Your task to perform on an android device: Go to Wikipedia Image 0: 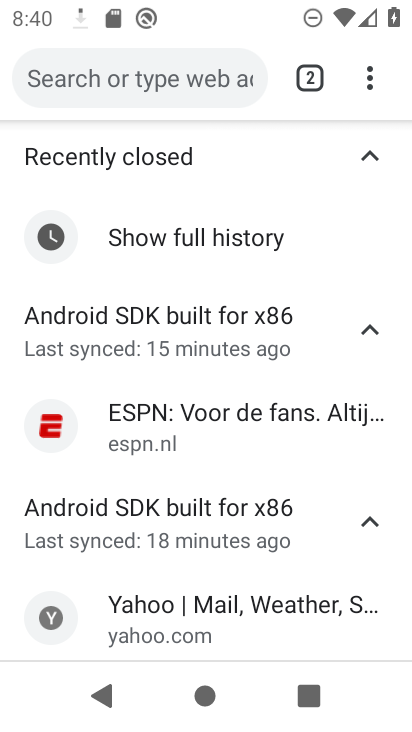
Step 0: press home button
Your task to perform on an android device: Go to Wikipedia Image 1: 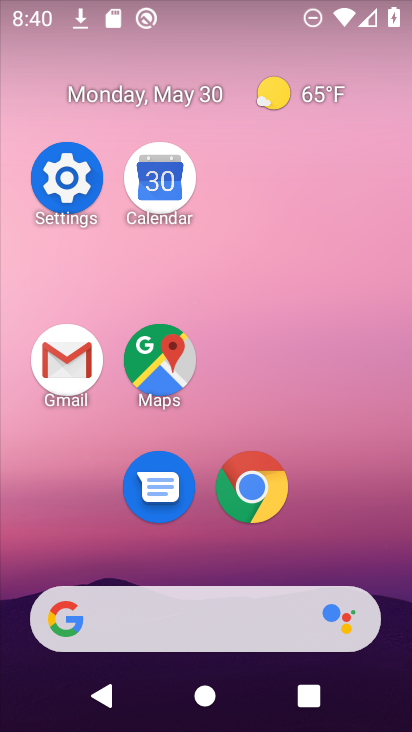
Step 1: click (247, 489)
Your task to perform on an android device: Go to Wikipedia Image 2: 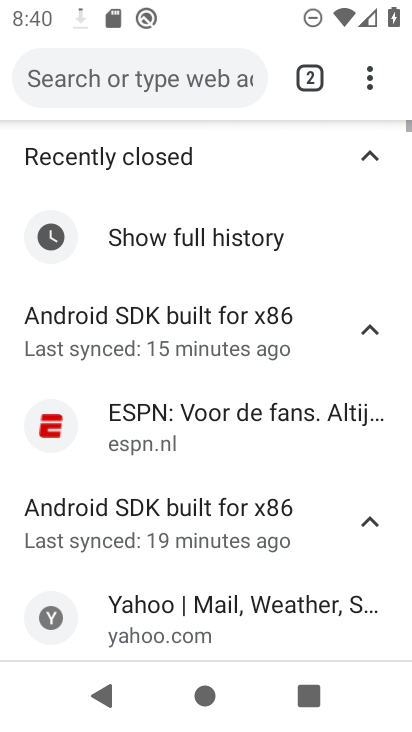
Step 2: click (300, 80)
Your task to perform on an android device: Go to Wikipedia Image 3: 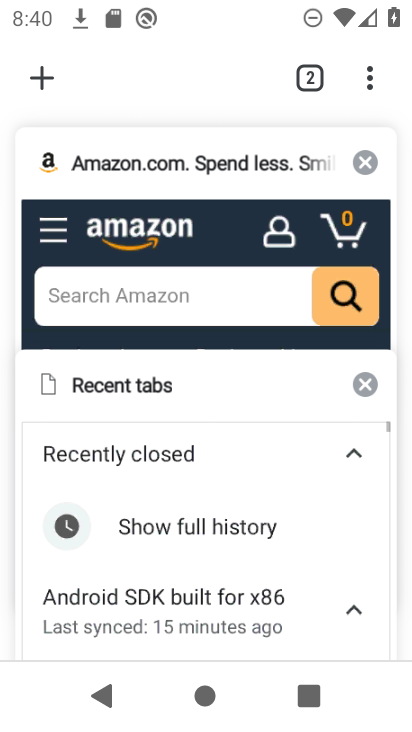
Step 3: click (44, 61)
Your task to perform on an android device: Go to Wikipedia Image 4: 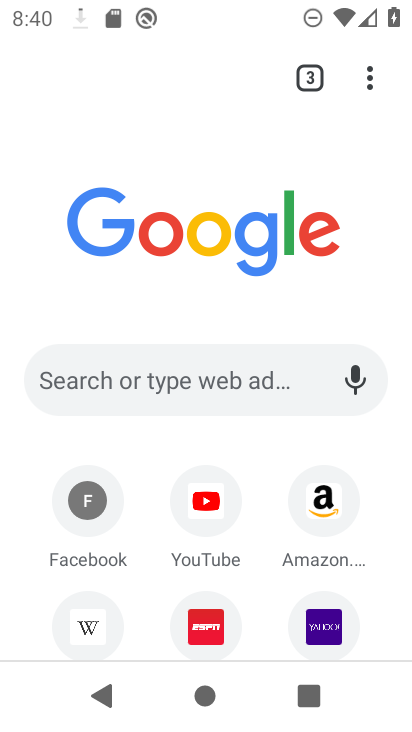
Step 4: click (84, 636)
Your task to perform on an android device: Go to Wikipedia Image 5: 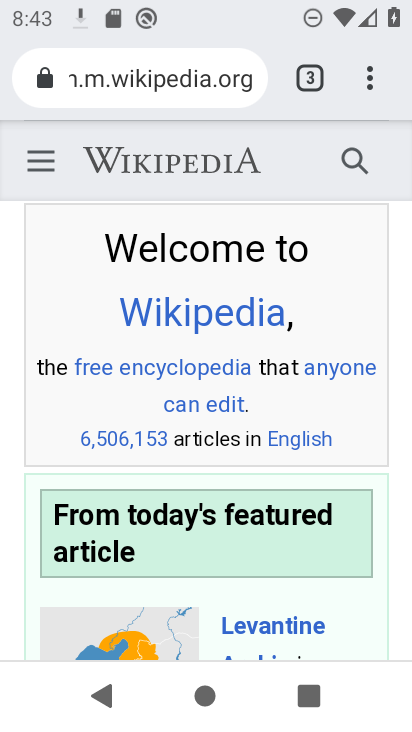
Step 5: task complete